Your task to perform on an android device: Do I have any events today? Image 0: 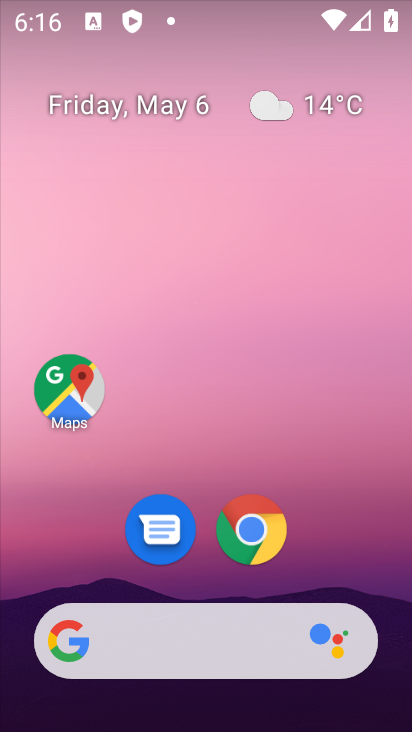
Step 0: drag from (338, 543) to (232, 89)
Your task to perform on an android device: Do I have any events today? Image 1: 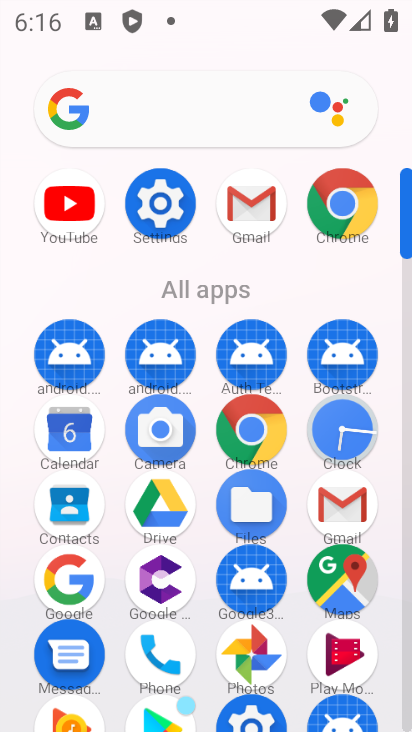
Step 1: click (70, 436)
Your task to perform on an android device: Do I have any events today? Image 2: 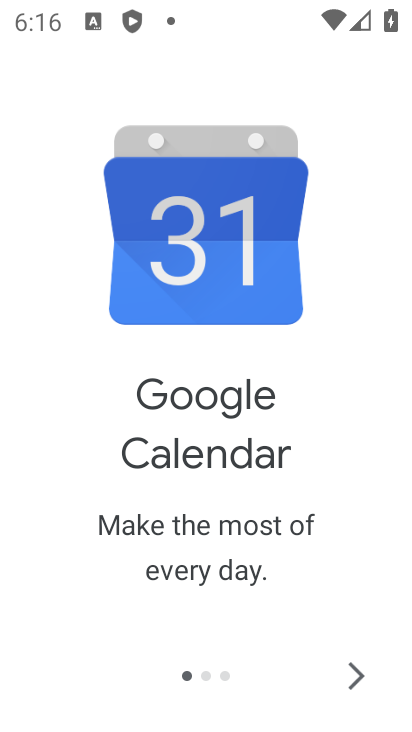
Step 2: click (353, 681)
Your task to perform on an android device: Do I have any events today? Image 3: 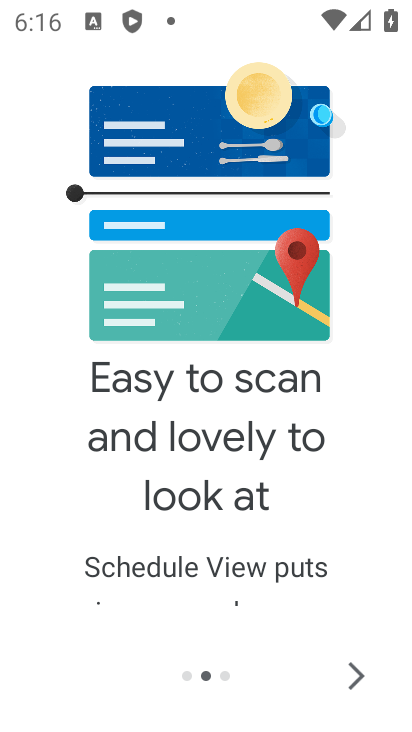
Step 3: click (348, 673)
Your task to perform on an android device: Do I have any events today? Image 4: 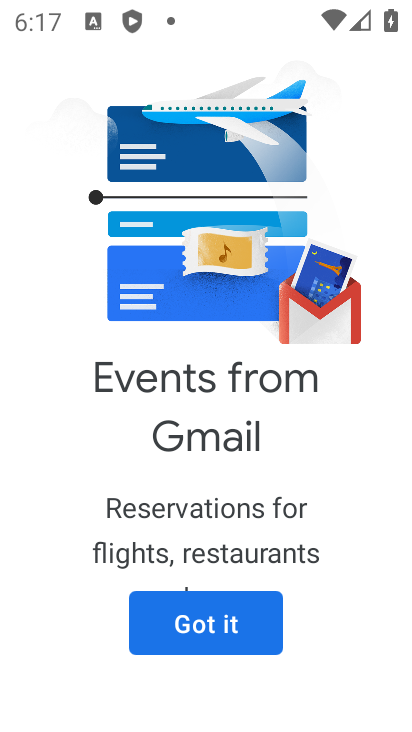
Step 4: click (348, 666)
Your task to perform on an android device: Do I have any events today? Image 5: 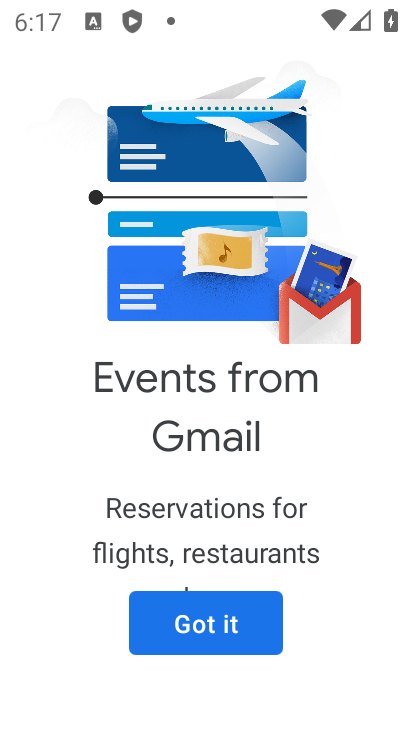
Step 5: click (235, 624)
Your task to perform on an android device: Do I have any events today? Image 6: 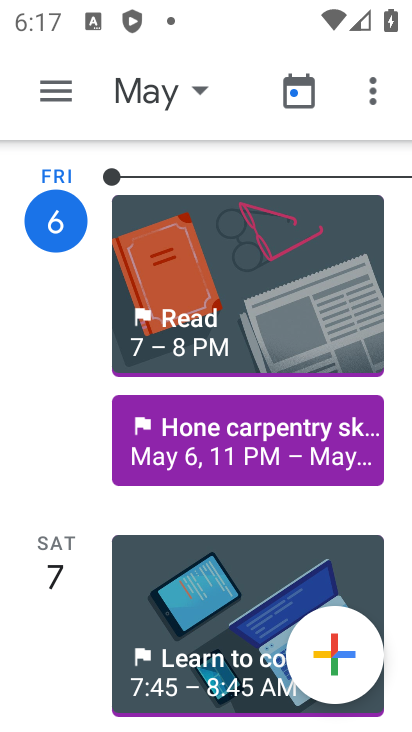
Step 6: click (61, 91)
Your task to perform on an android device: Do I have any events today? Image 7: 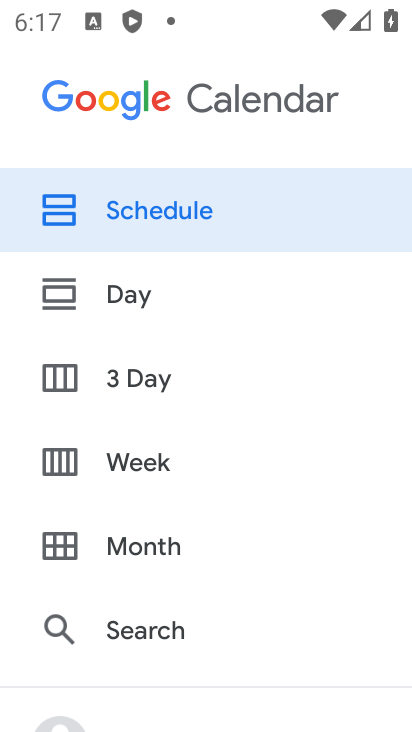
Step 7: drag from (224, 637) to (235, 173)
Your task to perform on an android device: Do I have any events today? Image 8: 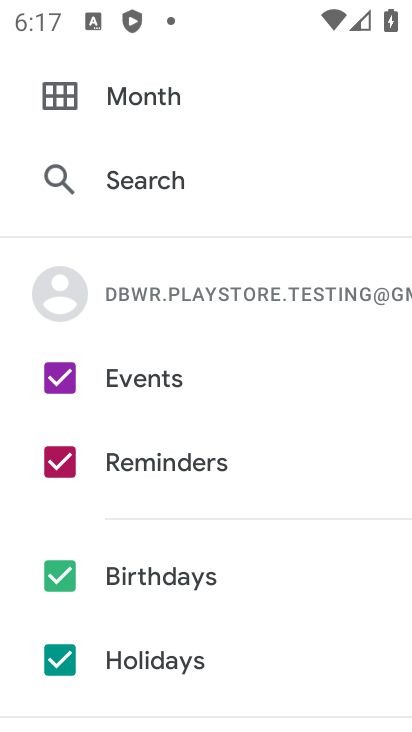
Step 8: click (62, 462)
Your task to perform on an android device: Do I have any events today? Image 9: 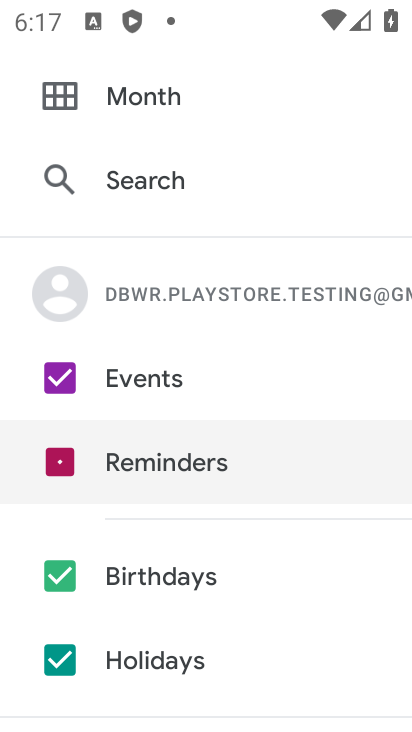
Step 9: click (54, 573)
Your task to perform on an android device: Do I have any events today? Image 10: 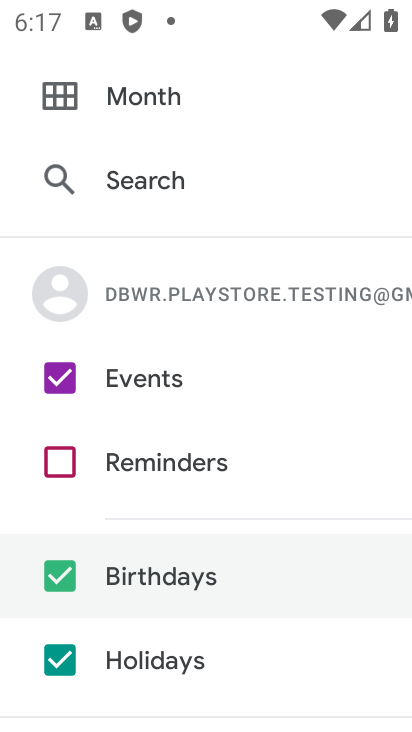
Step 10: click (63, 665)
Your task to perform on an android device: Do I have any events today? Image 11: 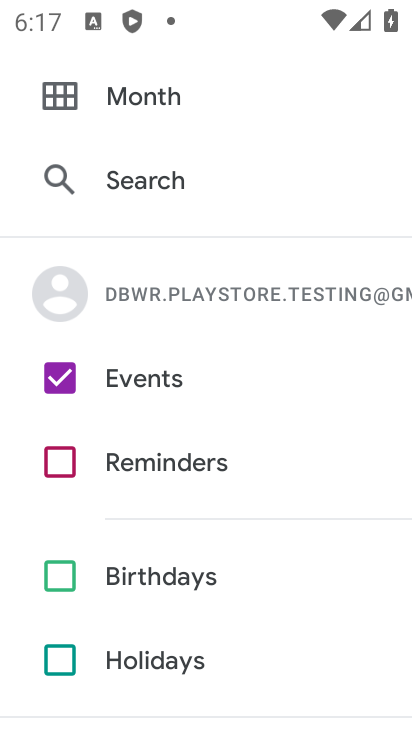
Step 11: task complete